Your task to perform on an android device: Show the shopping cart on newegg. Image 0: 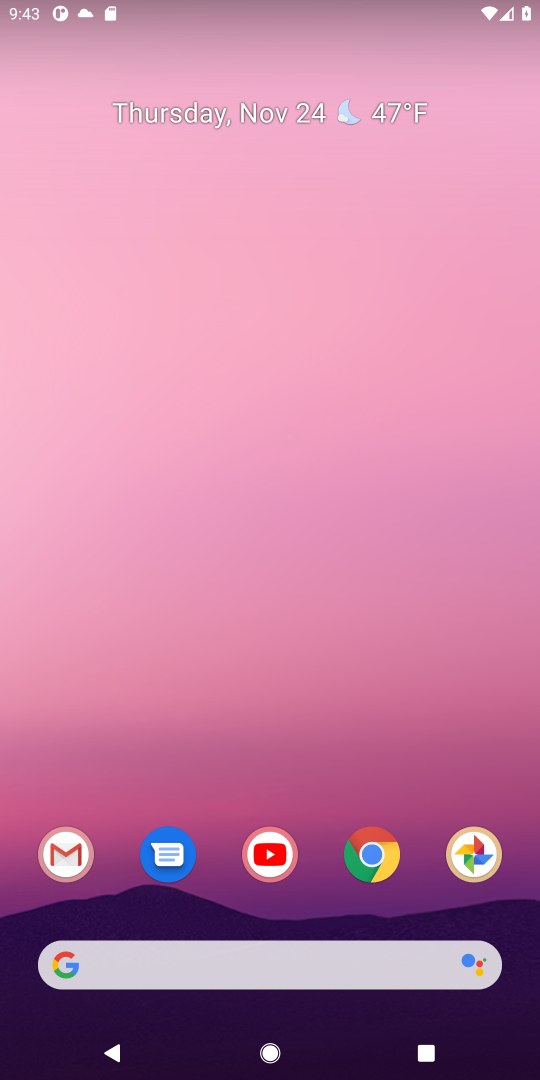
Step 0: click (370, 862)
Your task to perform on an android device: Show the shopping cart on newegg. Image 1: 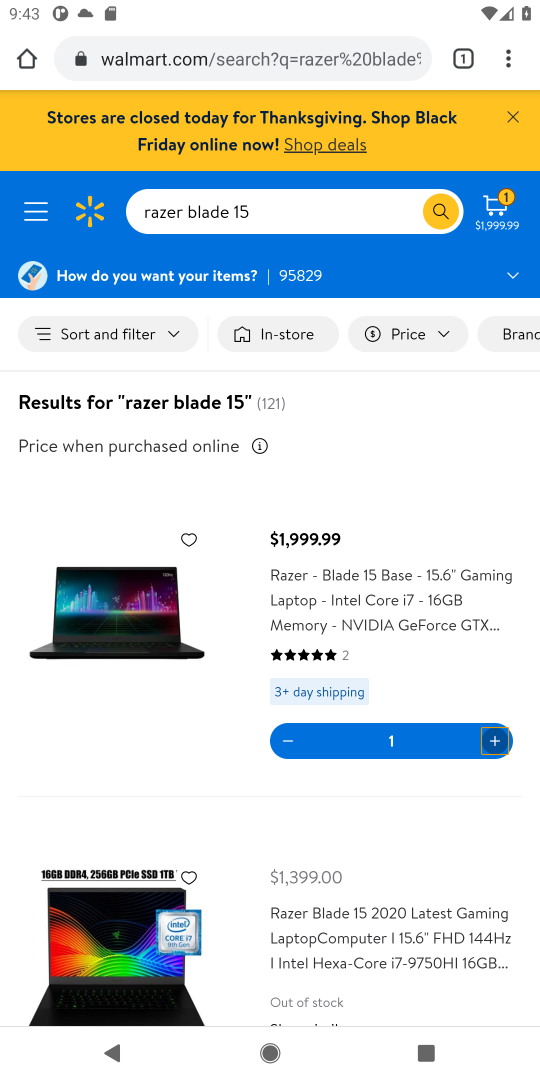
Step 1: click (229, 60)
Your task to perform on an android device: Show the shopping cart on newegg. Image 2: 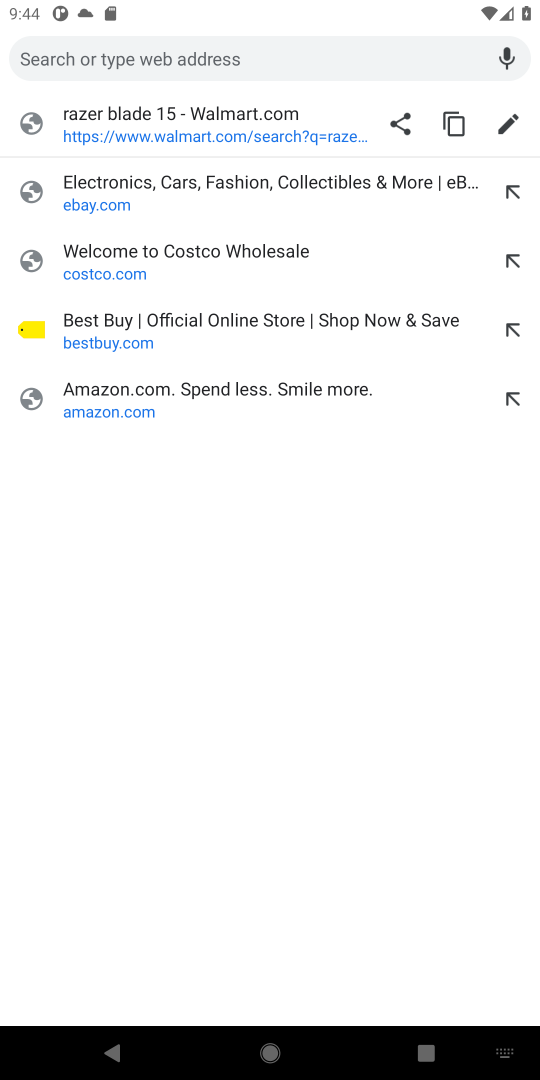
Step 2: type "newegg.com"
Your task to perform on an android device: Show the shopping cart on newegg. Image 3: 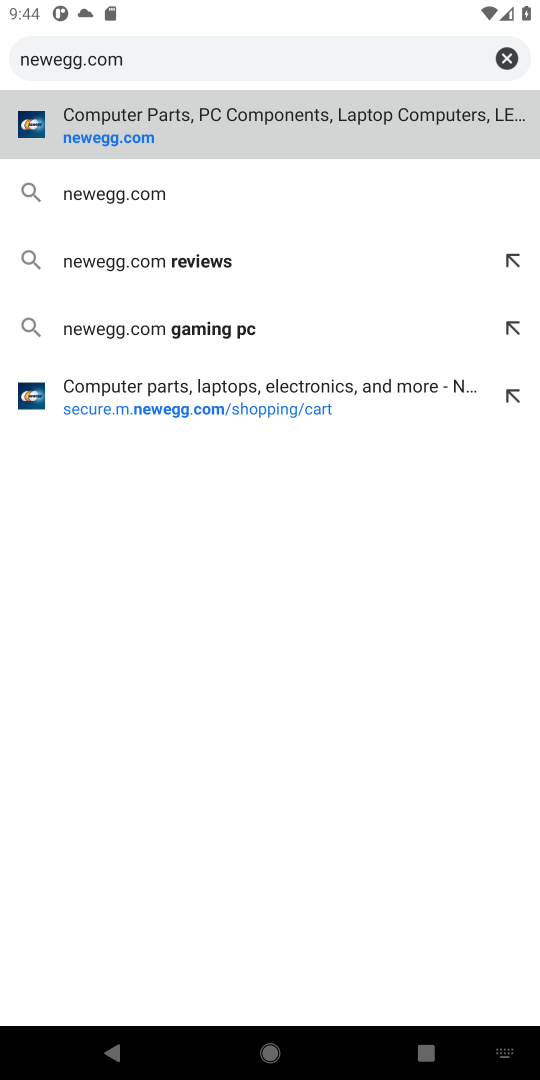
Step 3: click (122, 124)
Your task to perform on an android device: Show the shopping cart on newegg. Image 4: 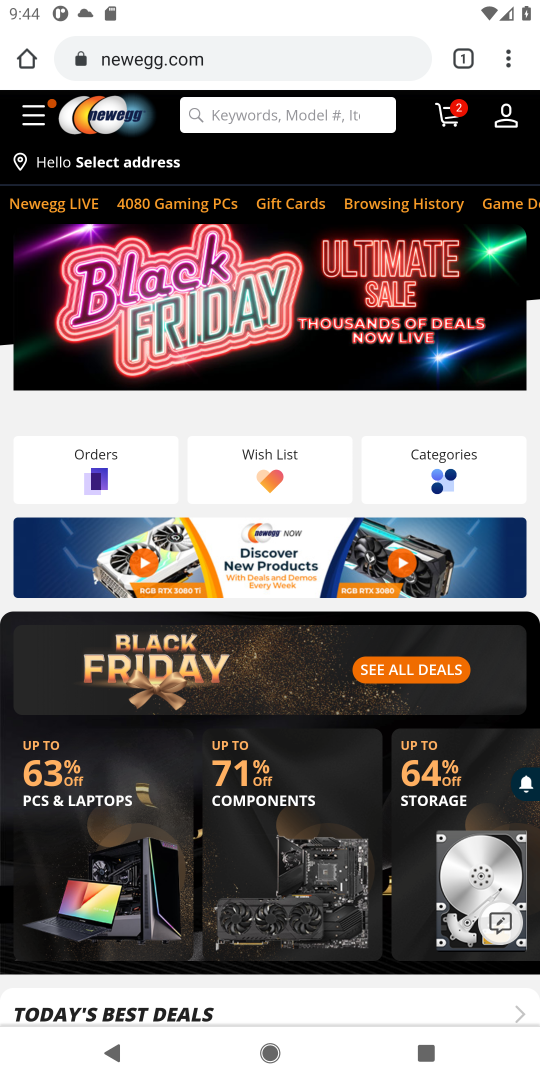
Step 4: click (453, 127)
Your task to perform on an android device: Show the shopping cart on newegg. Image 5: 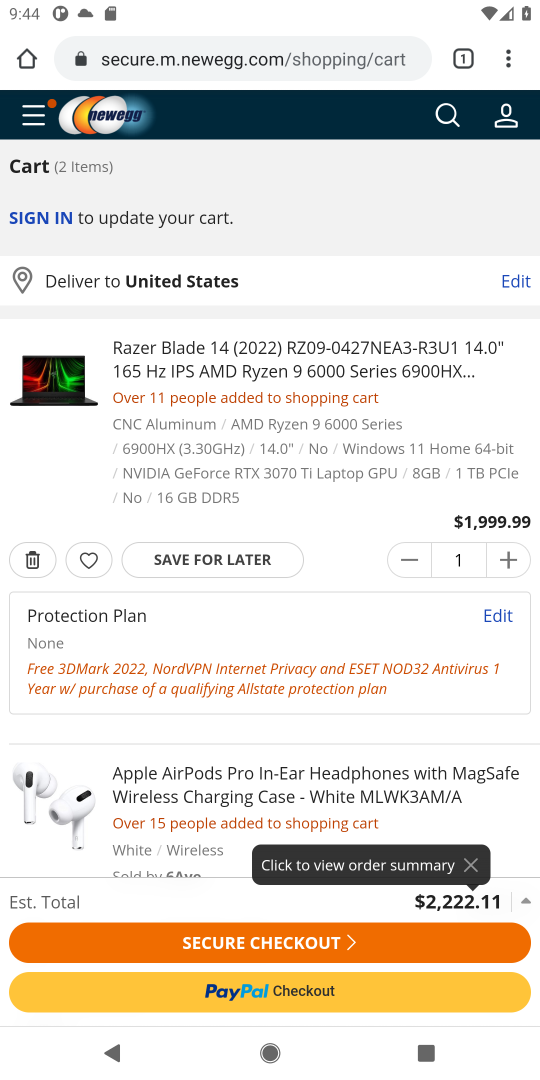
Step 5: task complete